Your task to perform on an android device: Set the phone to "Do not disturb". Image 0: 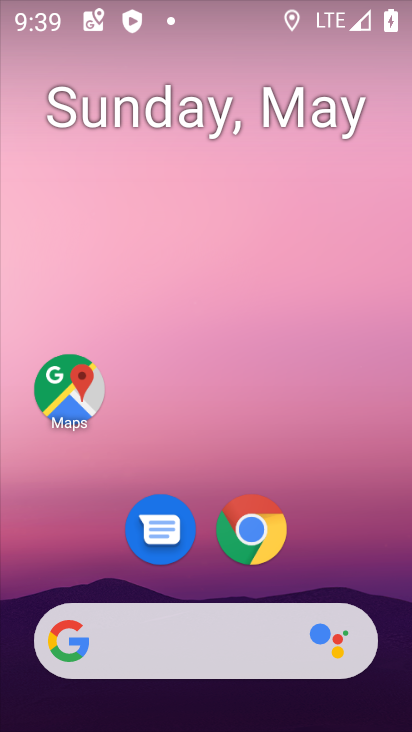
Step 0: drag from (374, 545) to (375, 208)
Your task to perform on an android device: Set the phone to "Do not disturb". Image 1: 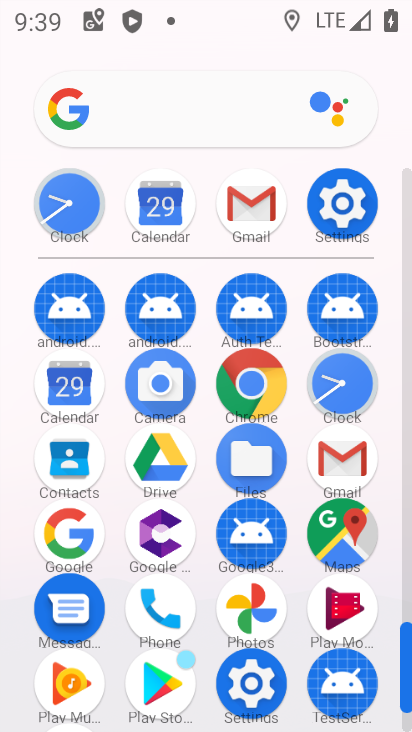
Step 1: click (350, 192)
Your task to perform on an android device: Set the phone to "Do not disturb". Image 2: 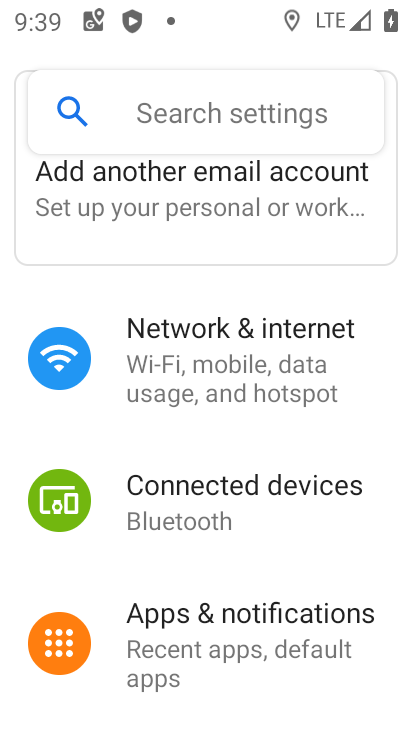
Step 2: drag from (234, 579) to (244, 305)
Your task to perform on an android device: Set the phone to "Do not disturb". Image 3: 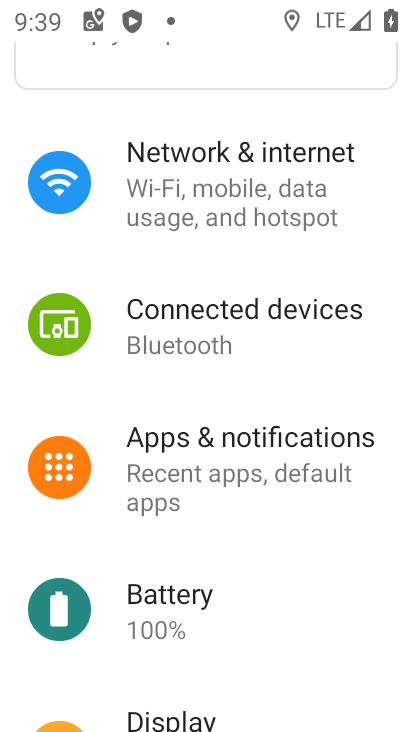
Step 3: drag from (195, 622) to (201, 404)
Your task to perform on an android device: Set the phone to "Do not disturb". Image 4: 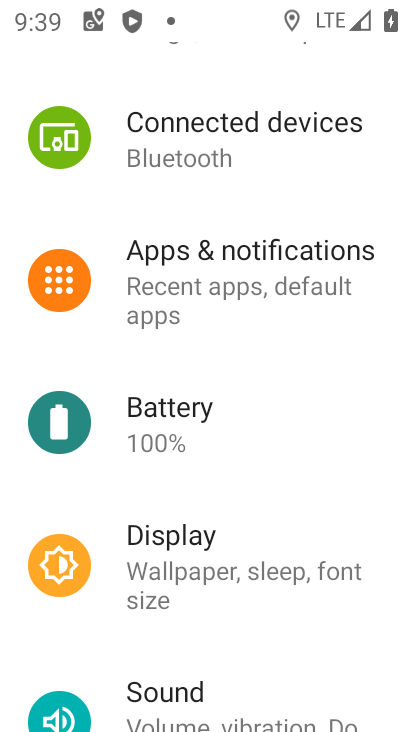
Step 4: drag from (221, 623) to (224, 347)
Your task to perform on an android device: Set the phone to "Do not disturb". Image 5: 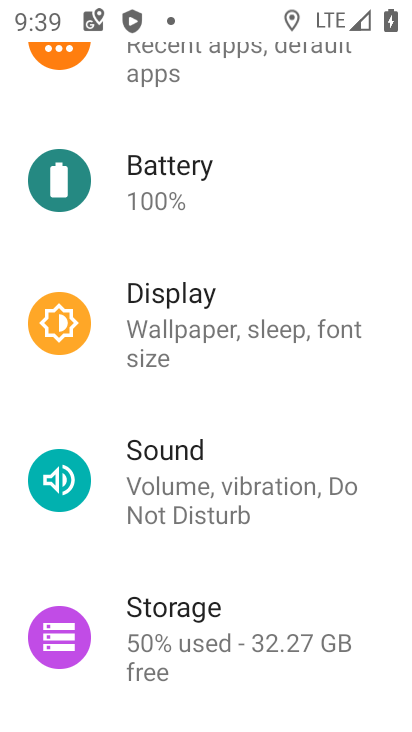
Step 5: click (254, 481)
Your task to perform on an android device: Set the phone to "Do not disturb". Image 6: 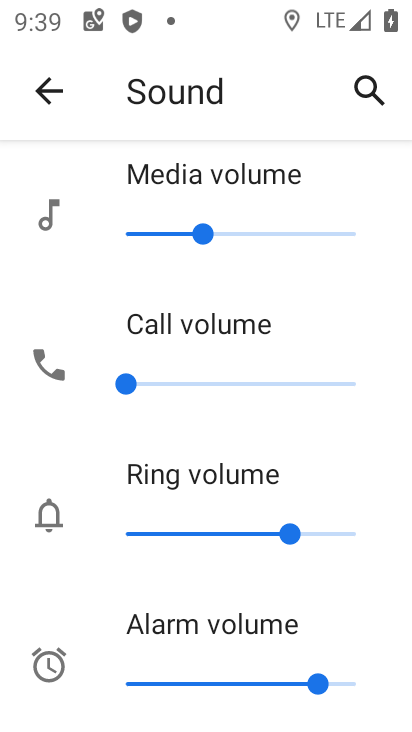
Step 6: click (240, 597)
Your task to perform on an android device: Set the phone to "Do not disturb". Image 7: 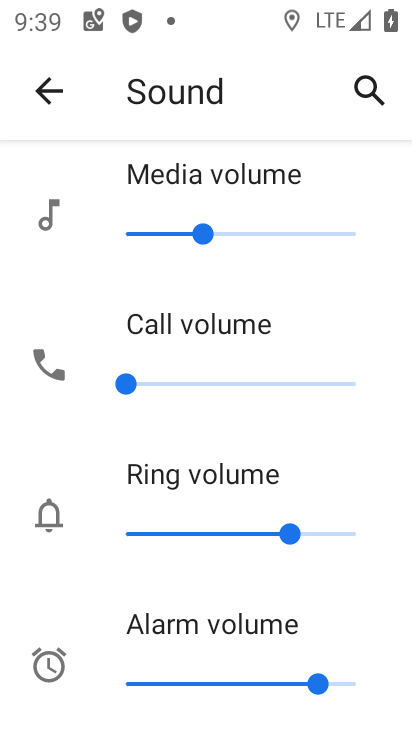
Step 7: drag from (240, 597) to (242, 392)
Your task to perform on an android device: Set the phone to "Do not disturb". Image 8: 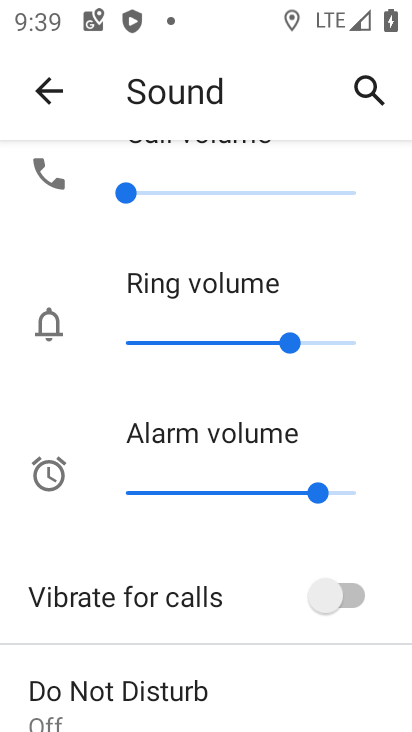
Step 8: click (228, 684)
Your task to perform on an android device: Set the phone to "Do not disturb". Image 9: 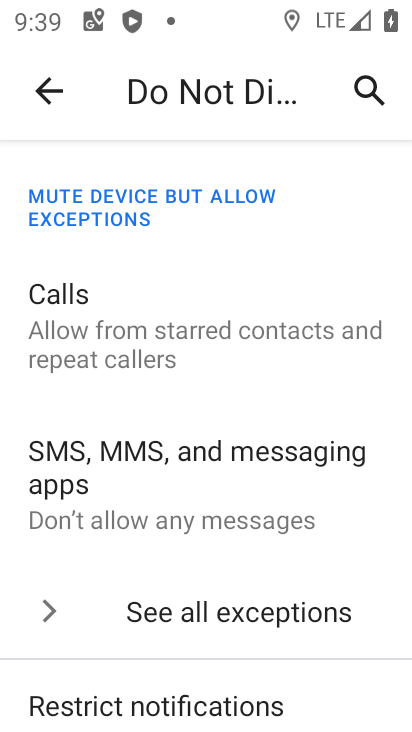
Step 9: task complete